Your task to perform on an android device: Open Google Image 0: 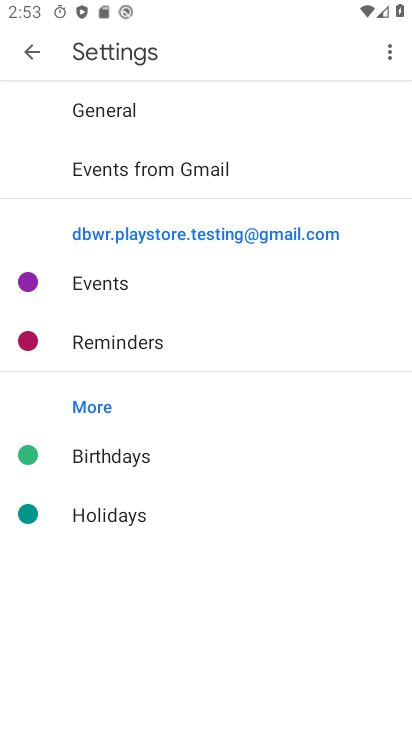
Step 0: press home button
Your task to perform on an android device: Open Google Image 1: 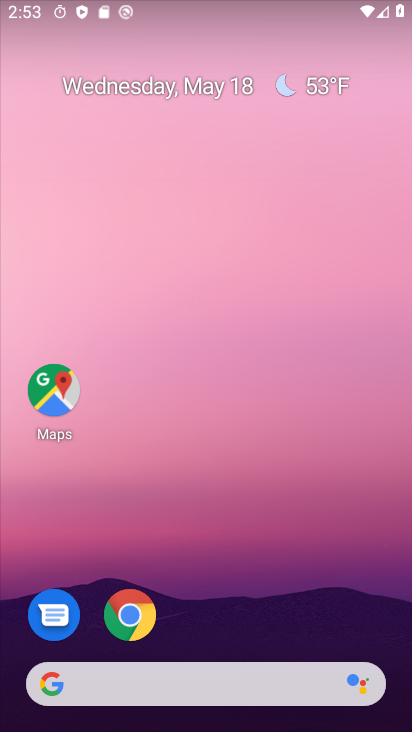
Step 1: drag from (208, 600) to (270, 315)
Your task to perform on an android device: Open Google Image 2: 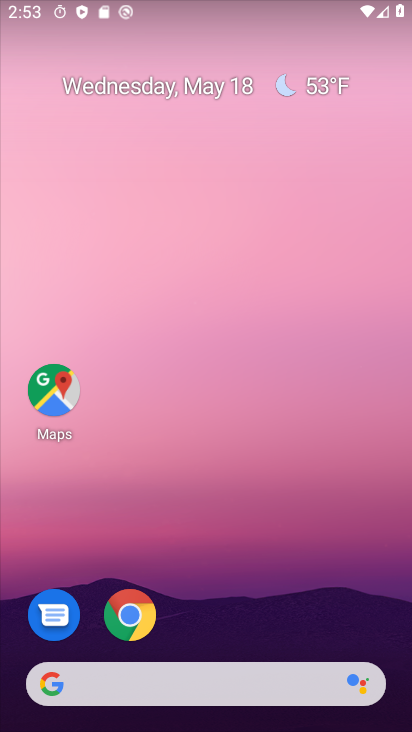
Step 2: drag from (203, 581) to (286, 144)
Your task to perform on an android device: Open Google Image 3: 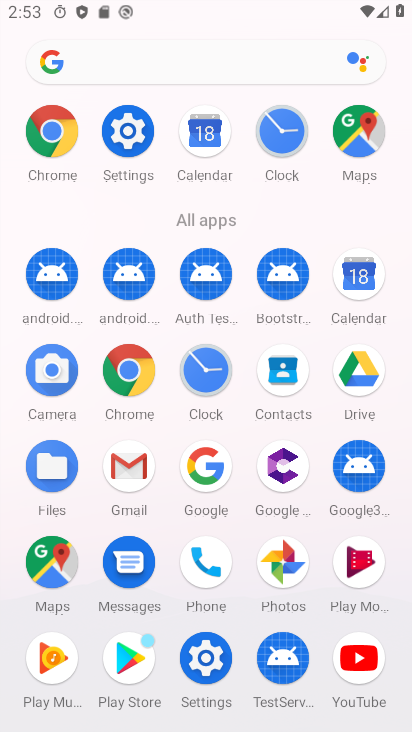
Step 3: click (210, 470)
Your task to perform on an android device: Open Google Image 4: 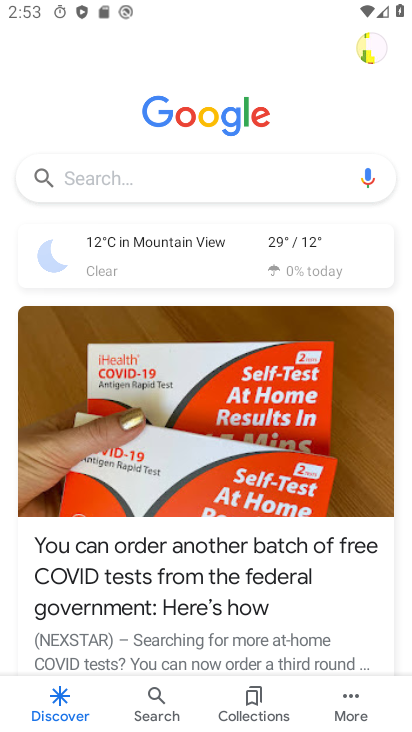
Step 4: task complete